Your task to perform on an android device: Open maps Image 0: 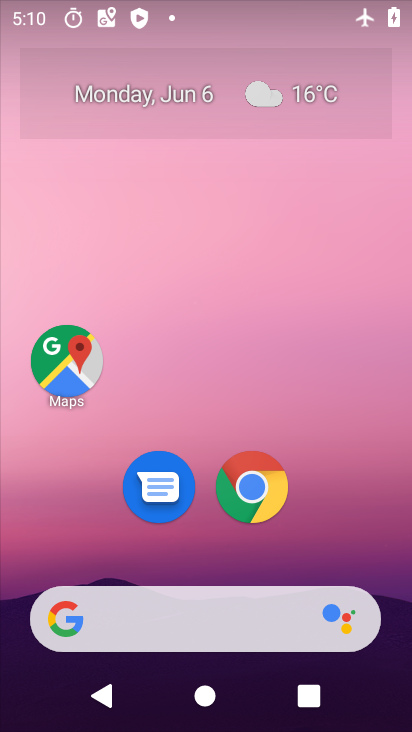
Step 0: click (308, 98)
Your task to perform on an android device: Open maps Image 1: 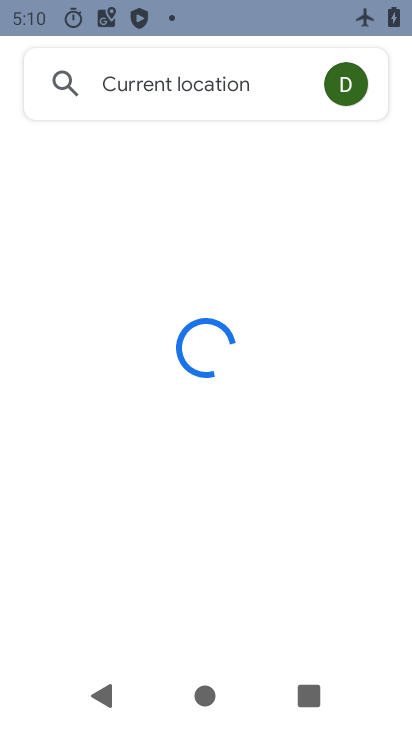
Step 1: press home button
Your task to perform on an android device: Open maps Image 2: 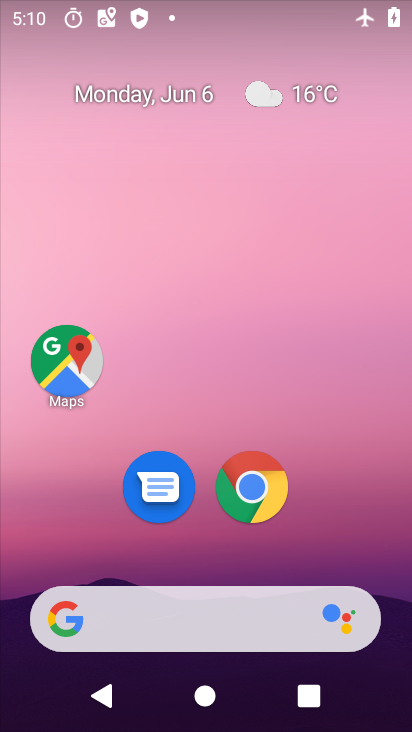
Step 2: click (69, 354)
Your task to perform on an android device: Open maps Image 3: 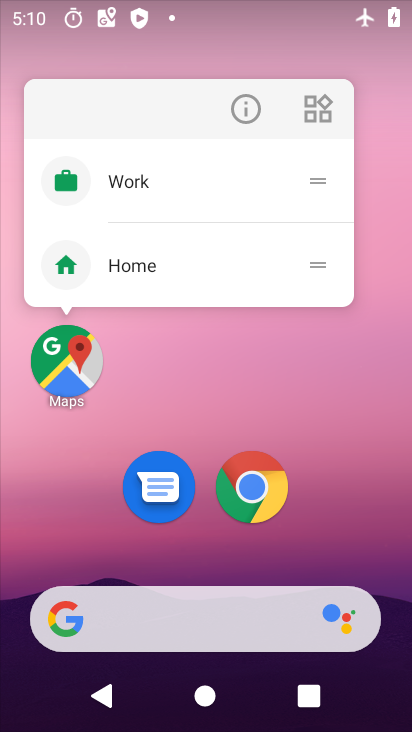
Step 3: click (58, 371)
Your task to perform on an android device: Open maps Image 4: 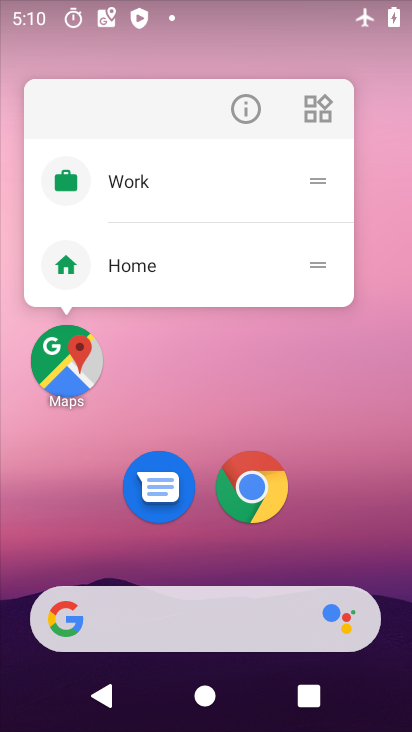
Step 4: click (67, 361)
Your task to perform on an android device: Open maps Image 5: 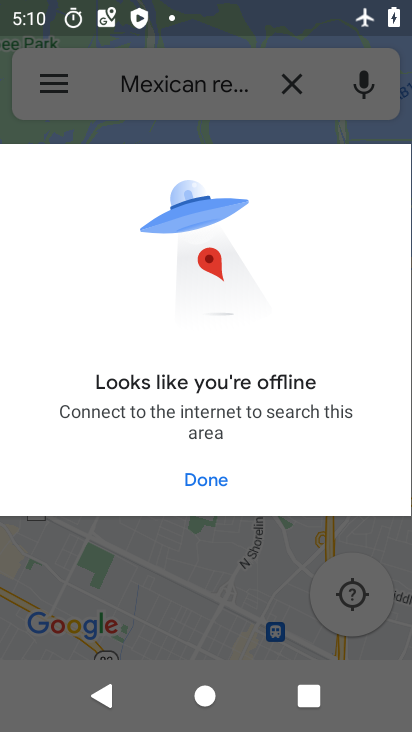
Step 5: task complete